Your task to perform on an android device: Turn off the flashlight Image 0: 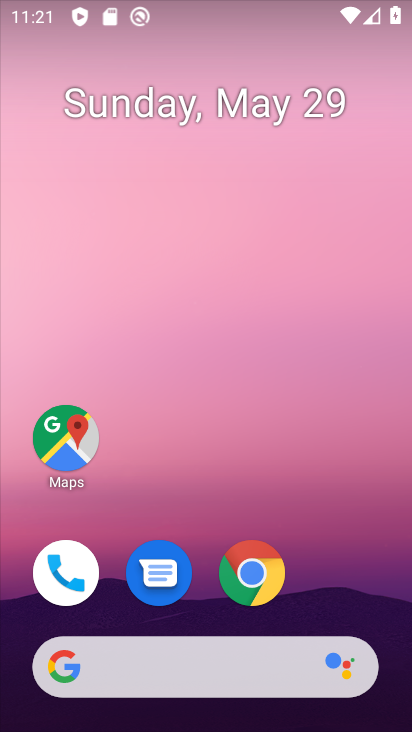
Step 0: drag from (274, 4) to (280, 373)
Your task to perform on an android device: Turn off the flashlight Image 1: 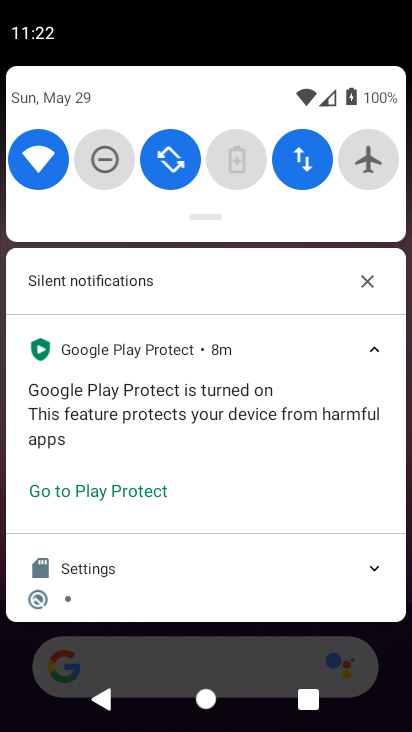
Step 1: task complete